Your task to perform on an android device: set the timer Image 0: 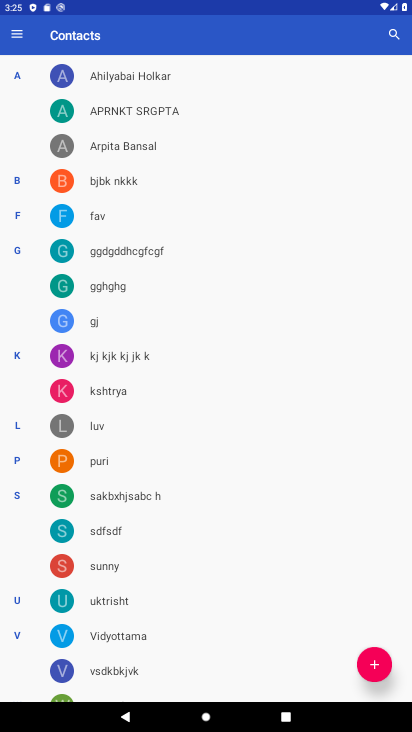
Step 0: press back button
Your task to perform on an android device: set the timer Image 1: 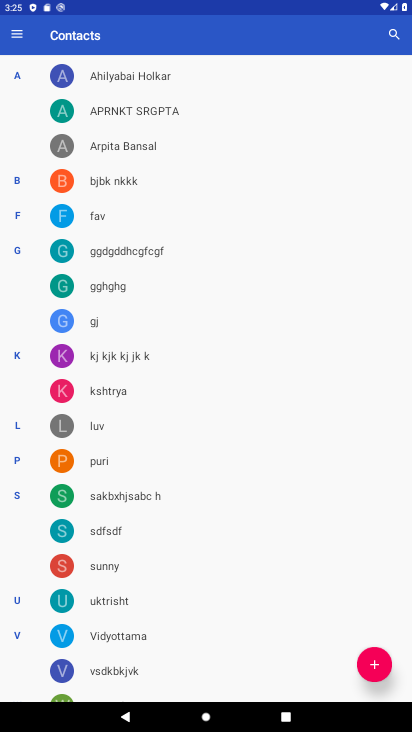
Step 1: press back button
Your task to perform on an android device: set the timer Image 2: 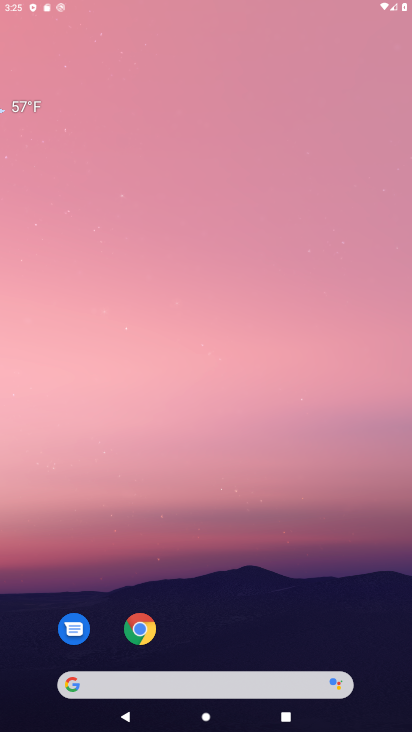
Step 2: press back button
Your task to perform on an android device: set the timer Image 3: 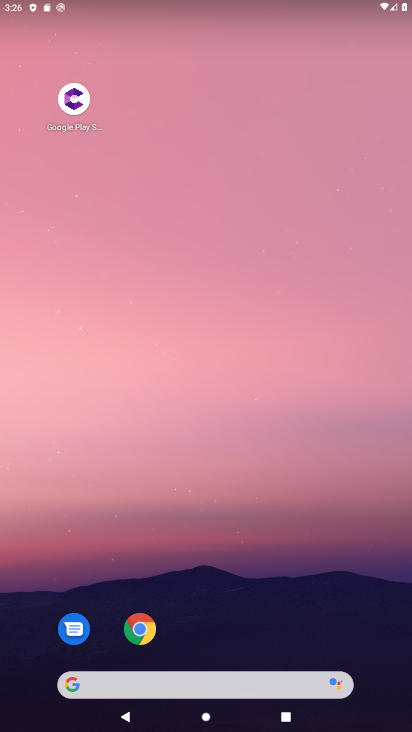
Step 3: drag from (246, 418) to (223, 169)
Your task to perform on an android device: set the timer Image 4: 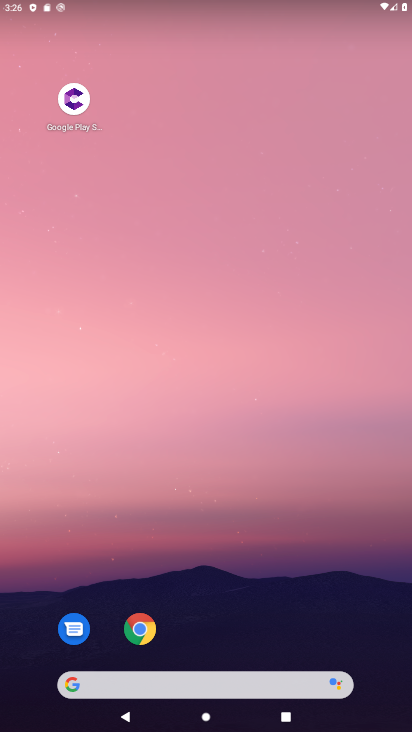
Step 4: drag from (145, 135) to (147, 6)
Your task to perform on an android device: set the timer Image 5: 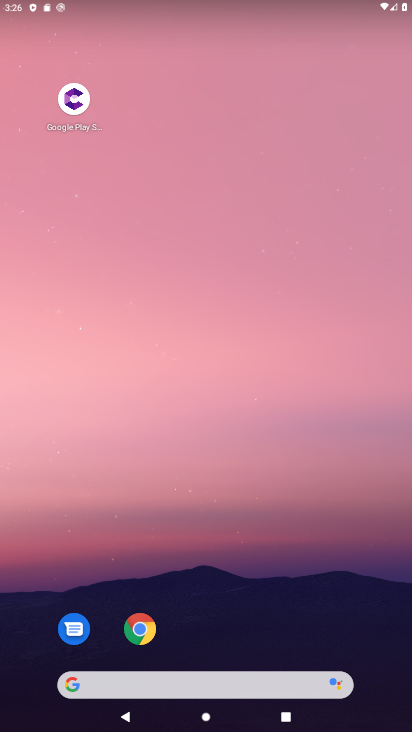
Step 5: drag from (253, 448) to (217, 144)
Your task to perform on an android device: set the timer Image 6: 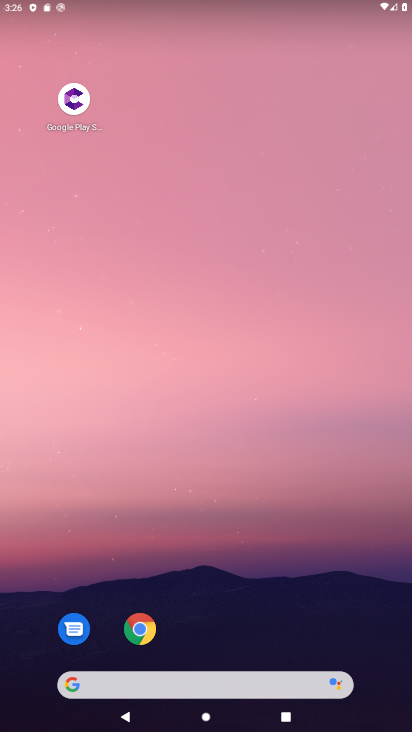
Step 6: drag from (210, 564) to (160, 15)
Your task to perform on an android device: set the timer Image 7: 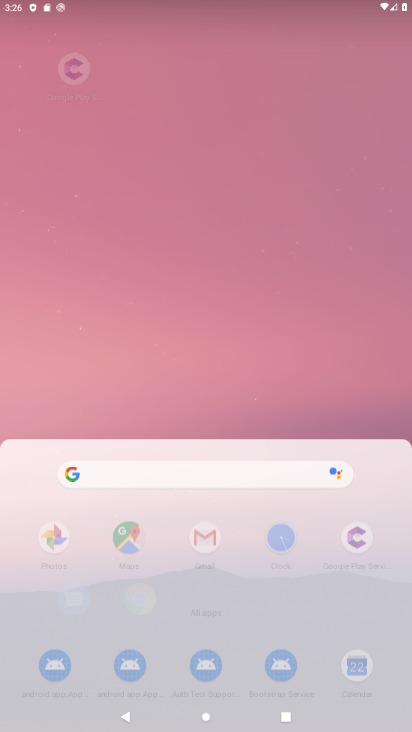
Step 7: drag from (236, 547) to (168, 11)
Your task to perform on an android device: set the timer Image 8: 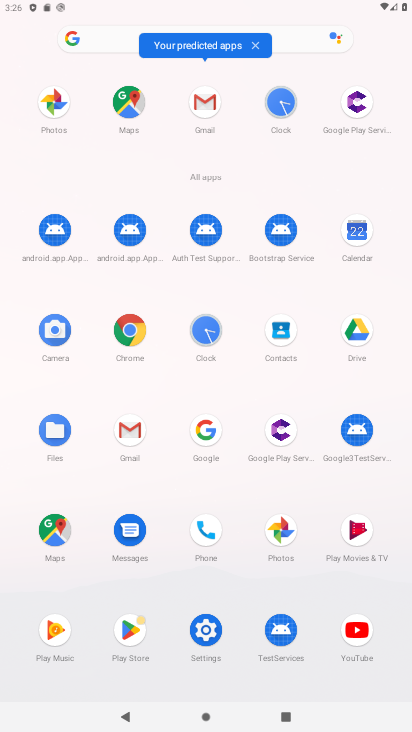
Step 8: click (209, 326)
Your task to perform on an android device: set the timer Image 9: 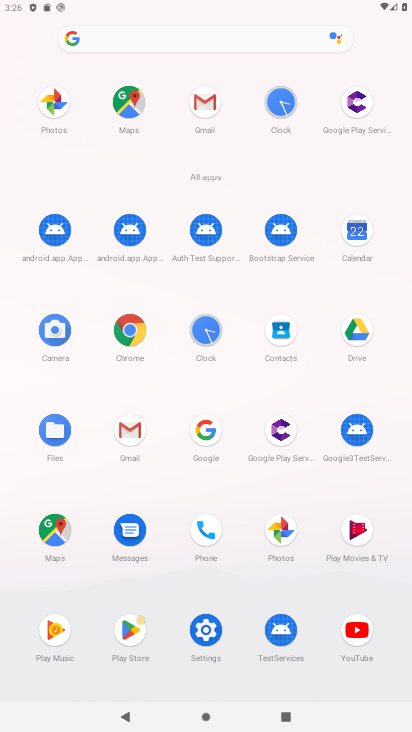
Step 9: click (208, 324)
Your task to perform on an android device: set the timer Image 10: 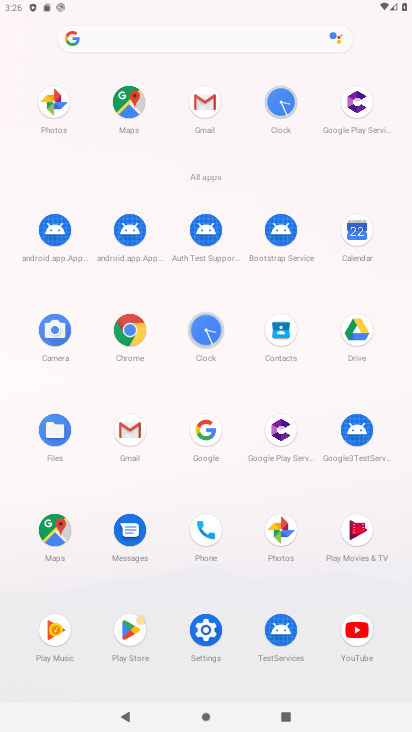
Step 10: click (207, 323)
Your task to perform on an android device: set the timer Image 11: 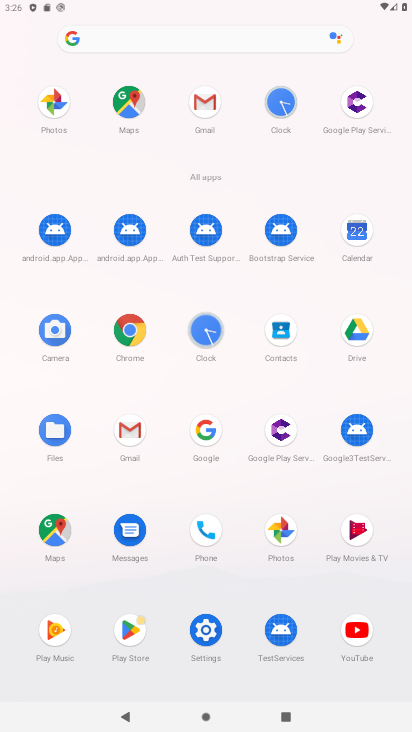
Step 11: click (207, 323)
Your task to perform on an android device: set the timer Image 12: 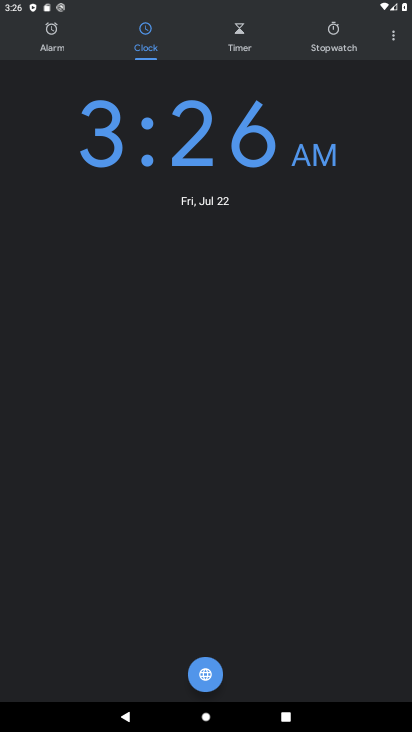
Step 12: click (236, 37)
Your task to perform on an android device: set the timer Image 13: 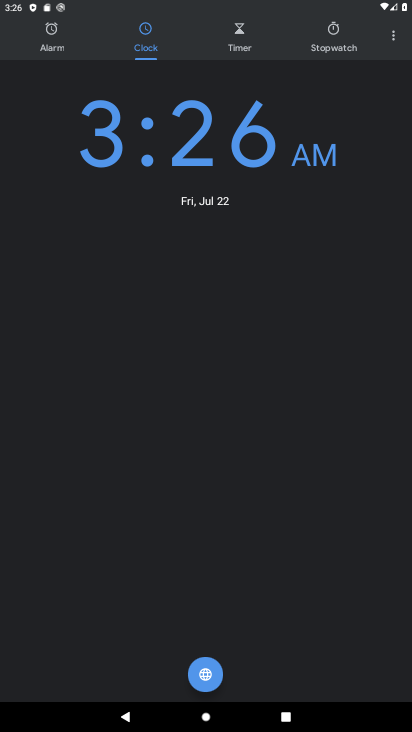
Step 13: click (233, 38)
Your task to perform on an android device: set the timer Image 14: 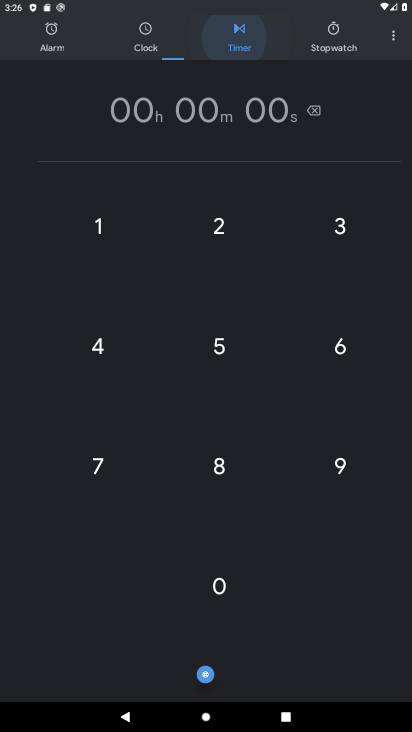
Step 14: click (236, 37)
Your task to perform on an android device: set the timer Image 15: 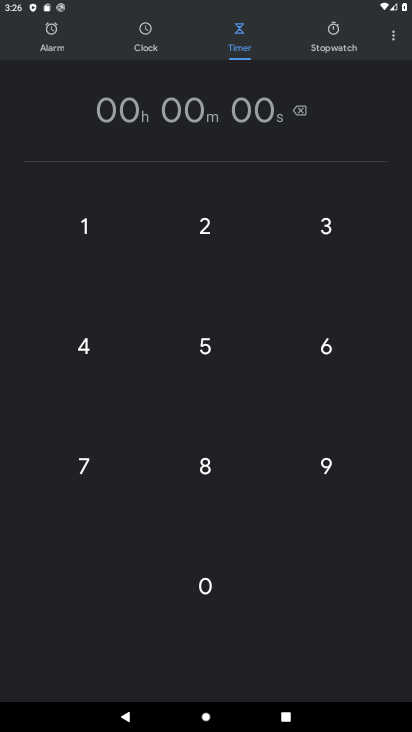
Step 15: click (240, 37)
Your task to perform on an android device: set the timer Image 16: 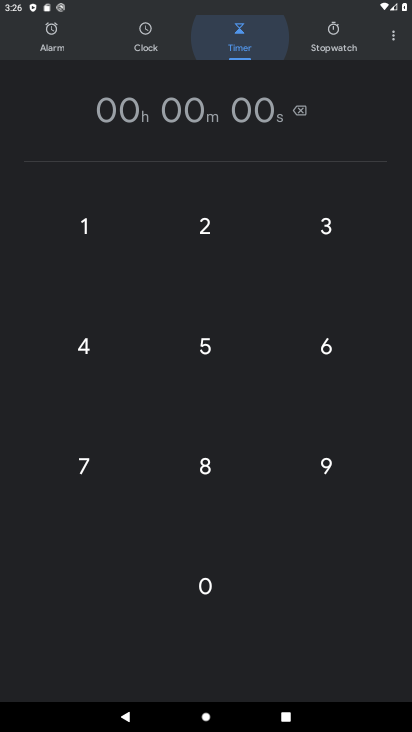
Step 16: click (268, 55)
Your task to perform on an android device: set the timer Image 17: 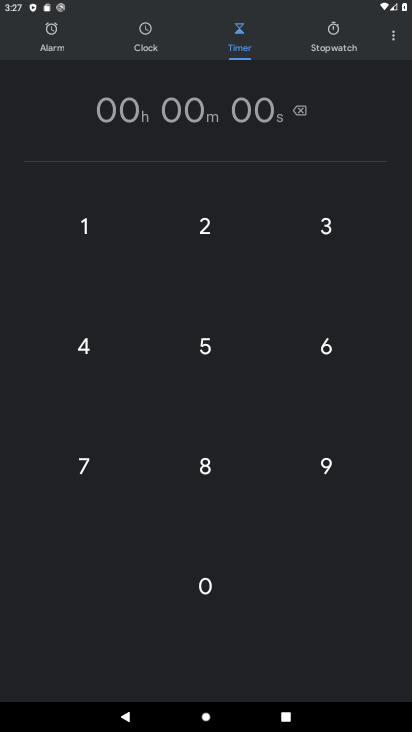
Step 17: click (199, 467)
Your task to perform on an android device: set the timer Image 18: 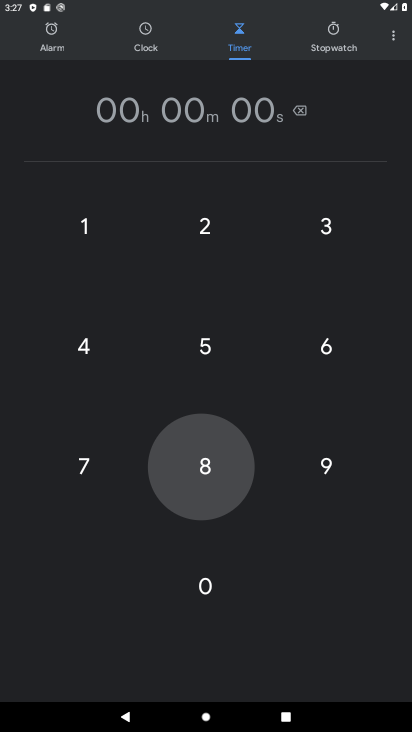
Step 18: click (200, 467)
Your task to perform on an android device: set the timer Image 19: 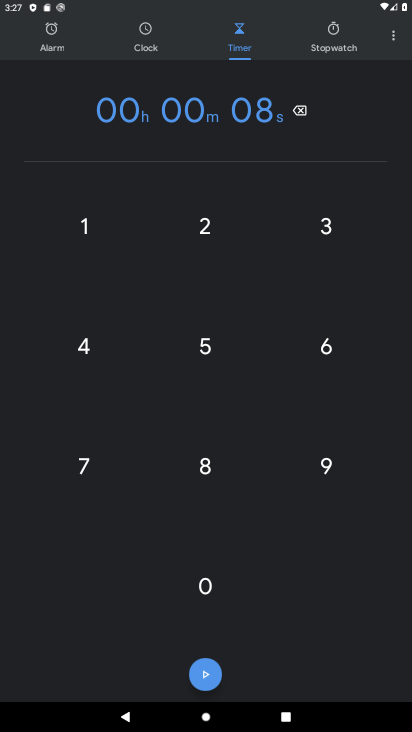
Step 19: click (209, 464)
Your task to perform on an android device: set the timer Image 20: 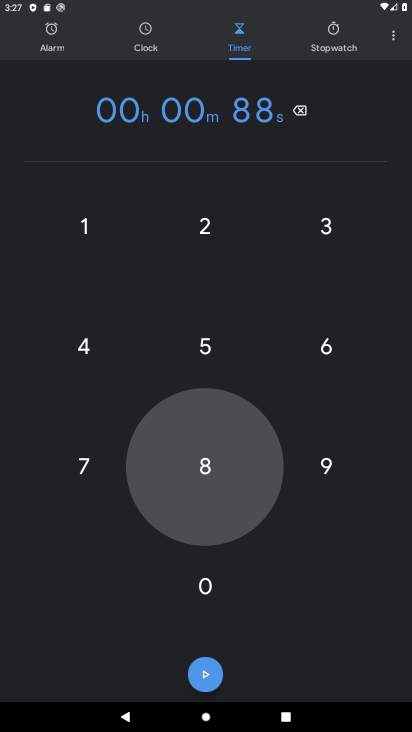
Step 20: click (209, 464)
Your task to perform on an android device: set the timer Image 21: 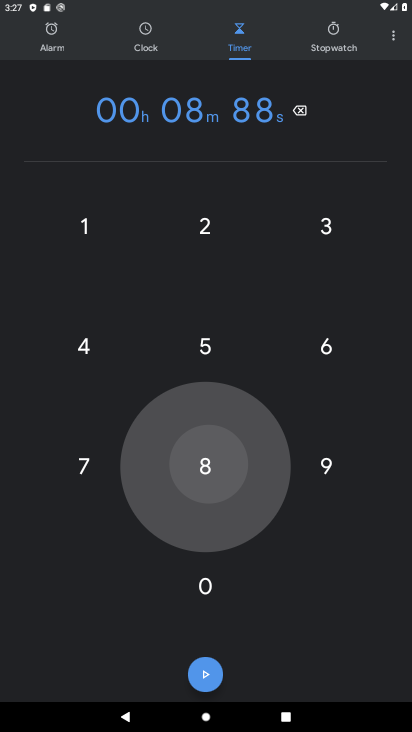
Step 21: click (209, 464)
Your task to perform on an android device: set the timer Image 22: 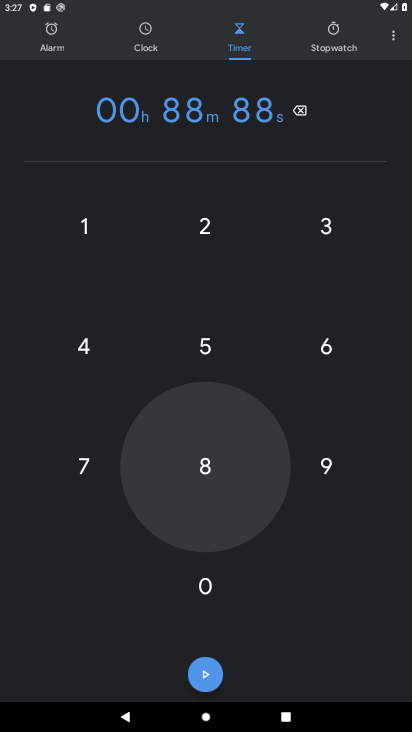
Step 22: click (209, 464)
Your task to perform on an android device: set the timer Image 23: 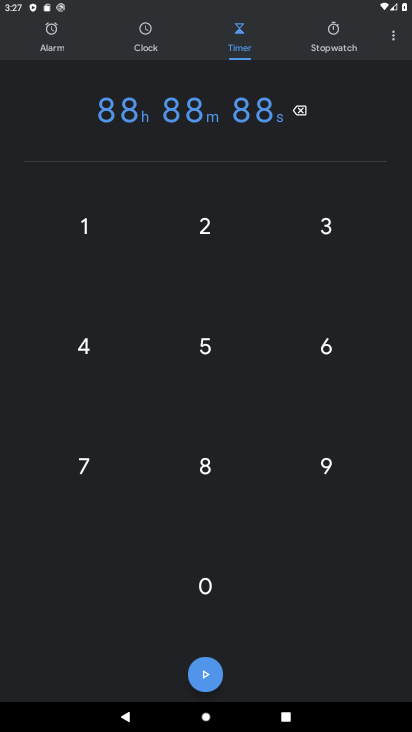
Step 23: click (205, 458)
Your task to perform on an android device: set the timer Image 24: 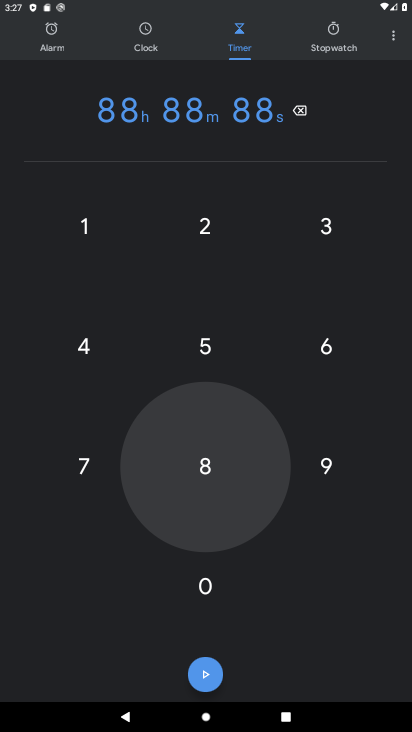
Step 24: click (207, 465)
Your task to perform on an android device: set the timer Image 25: 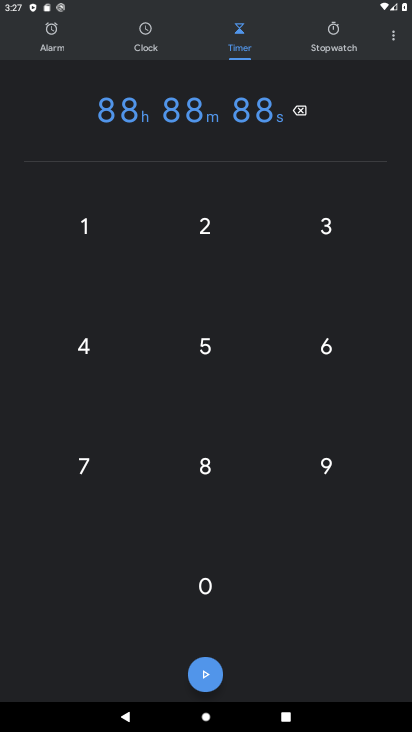
Step 25: click (210, 468)
Your task to perform on an android device: set the timer Image 26: 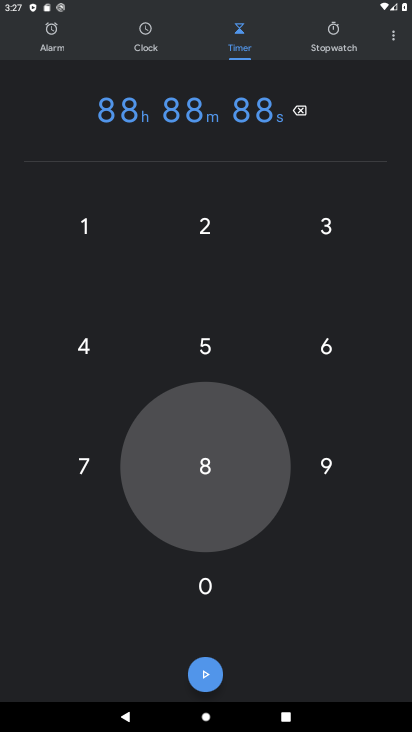
Step 26: click (202, 476)
Your task to perform on an android device: set the timer Image 27: 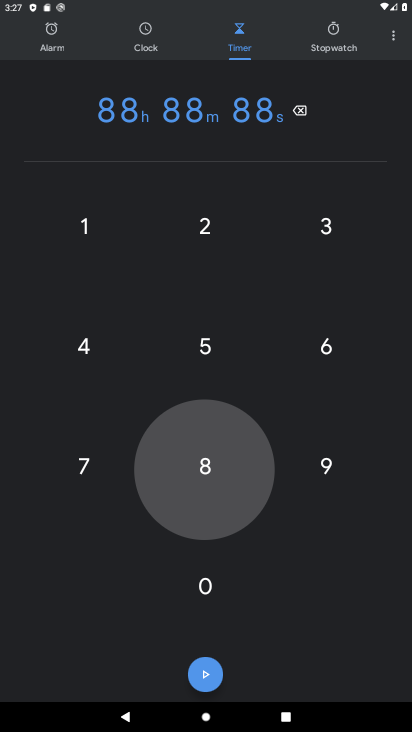
Step 27: click (202, 476)
Your task to perform on an android device: set the timer Image 28: 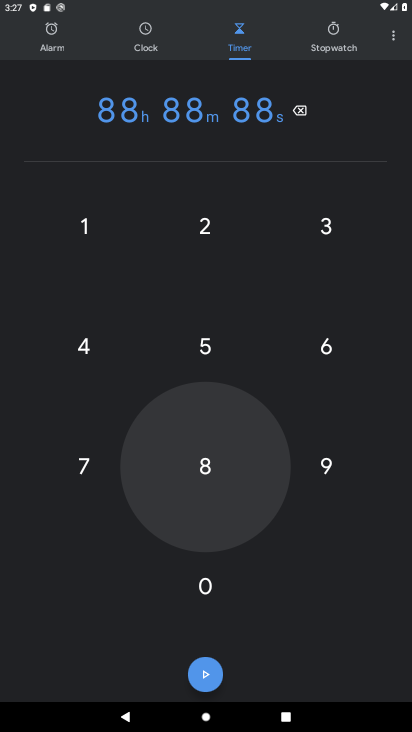
Step 28: click (202, 478)
Your task to perform on an android device: set the timer Image 29: 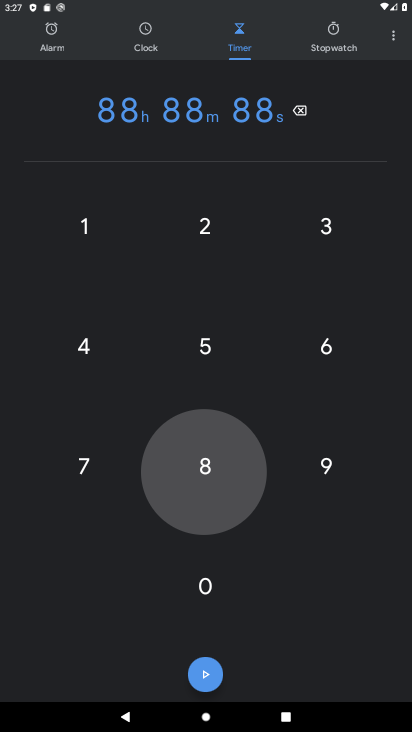
Step 29: drag from (205, 477) to (212, 510)
Your task to perform on an android device: set the timer Image 30: 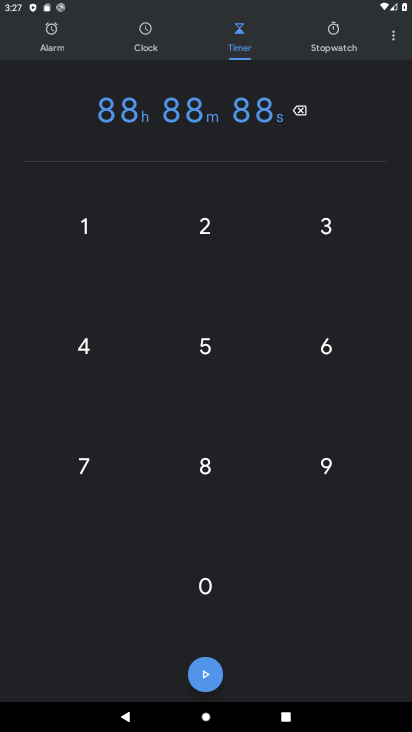
Step 30: click (202, 682)
Your task to perform on an android device: set the timer Image 31: 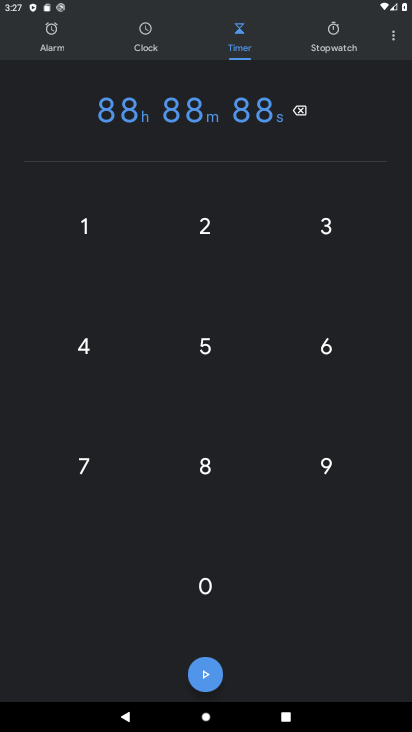
Step 31: click (202, 682)
Your task to perform on an android device: set the timer Image 32: 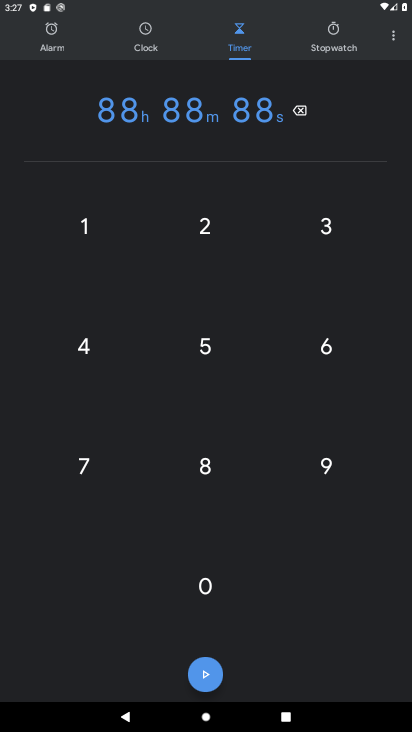
Step 32: click (202, 677)
Your task to perform on an android device: set the timer Image 33: 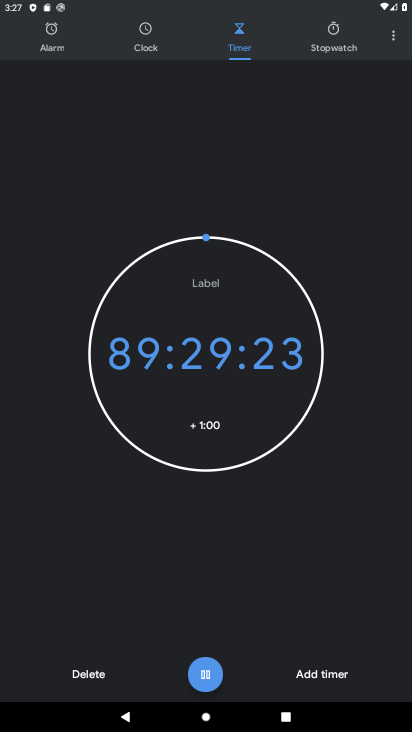
Step 33: click (203, 673)
Your task to perform on an android device: set the timer Image 34: 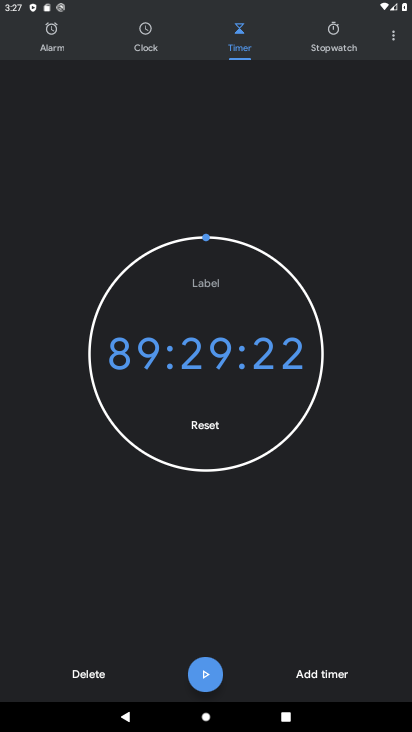
Step 34: task complete